Your task to perform on an android device: open a new tab in the chrome app Image 0: 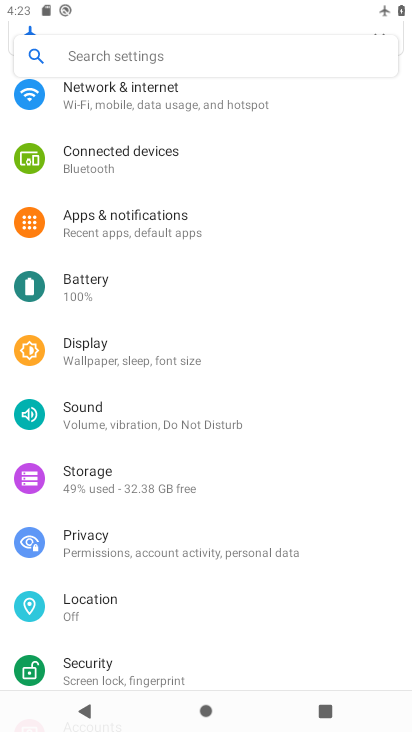
Step 0: press home button
Your task to perform on an android device: open a new tab in the chrome app Image 1: 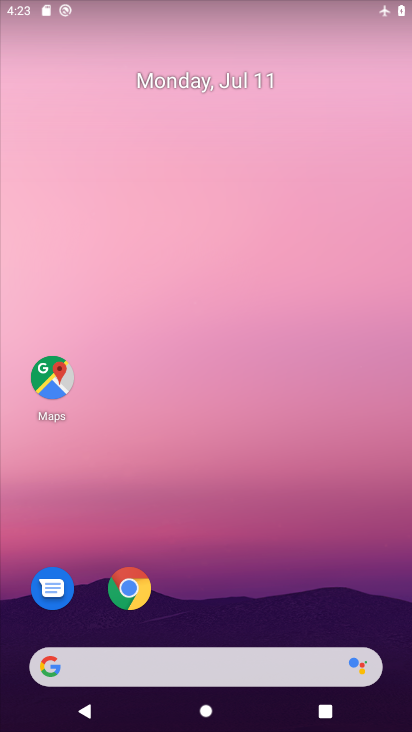
Step 1: drag from (371, 590) to (381, 128)
Your task to perform on an android device: open a new tab in the chrome app Image 2: 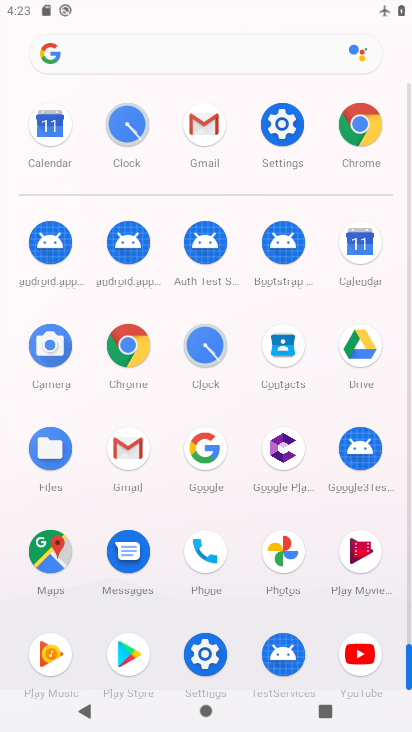
Step 2: click (130, 348)
Your task to perform on an android device: open a new tab in the chrome app Image 3: 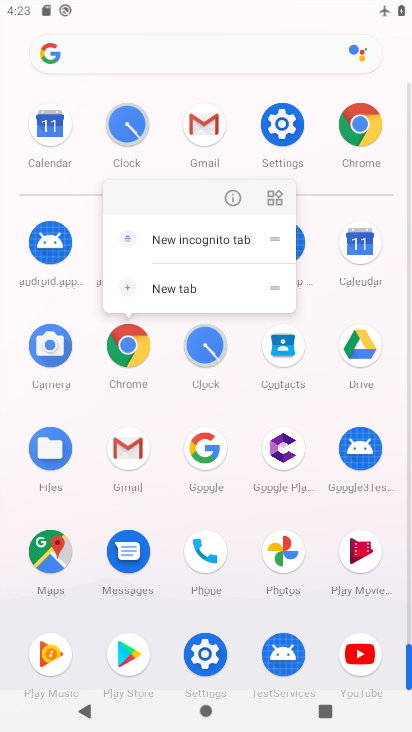
Step 3: click (130, 348)
Your task to perform on an android device: open a new tab in the chrome app Image 4: 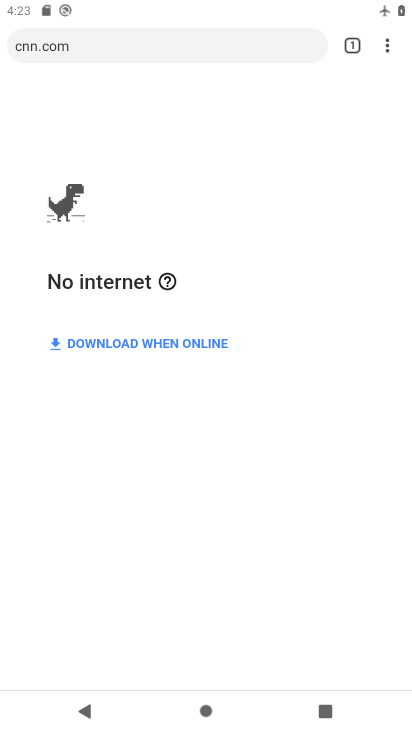
Step 4: click (386, 47)
Your task to perform on an android device: open a new tab in the chrome app Image 5: 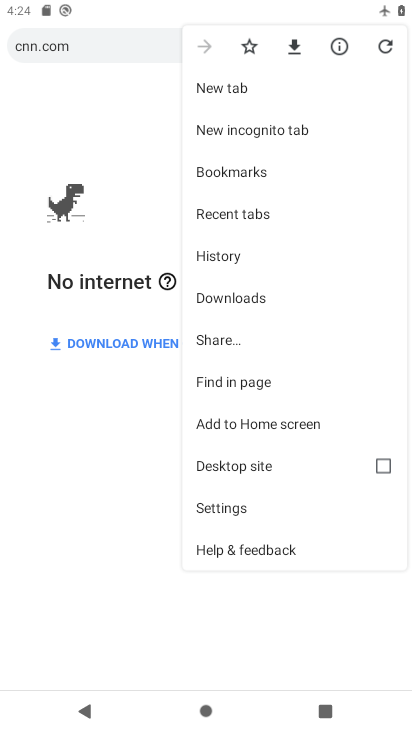
Step 5: click (262, 89)
Your task to perform on an android device: open a new tab in the chrome app Image 6: 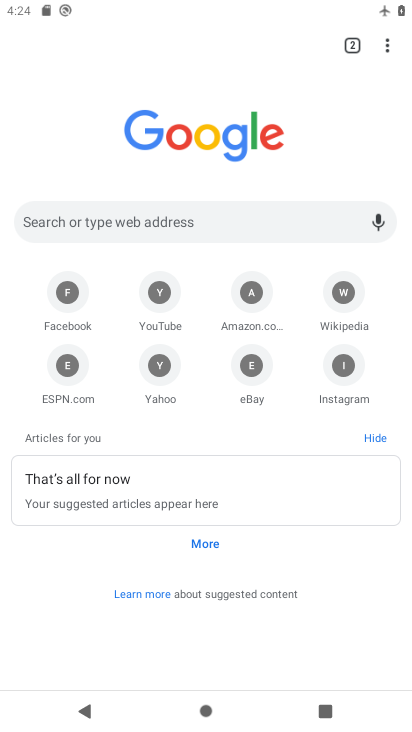
Step 6: task complete